Your task to perform on an android device: Go to Yahoo.com Image 0: 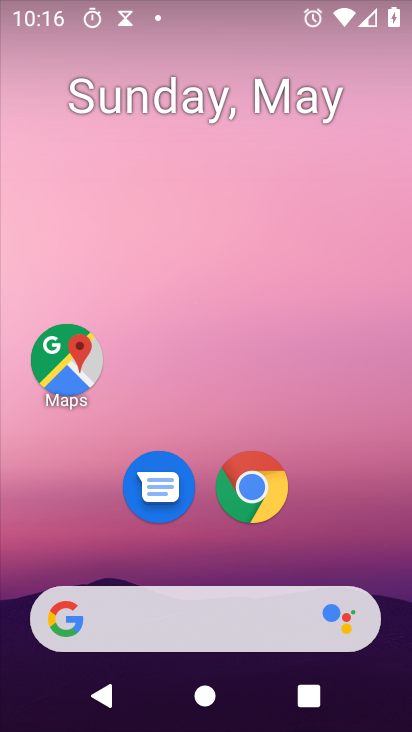
Step 0: drag from (326, 492) to (335, 138)
Your task to perform on an android device: Go to Yahoo.com Image 1: 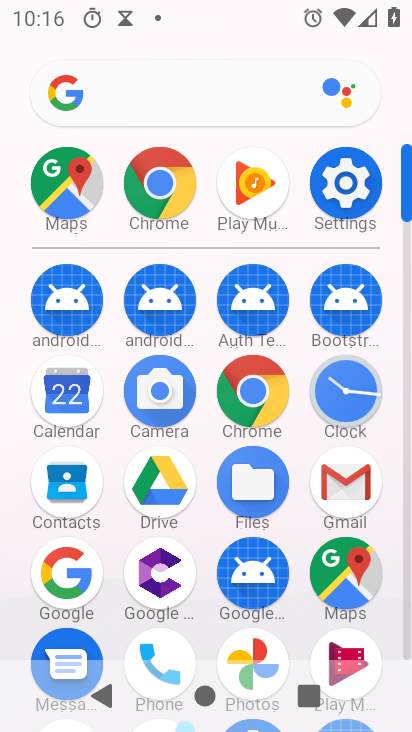
Step 1: click (192, 178)
Your task to perform on an android device: Go to Yahoo.com Image 2: 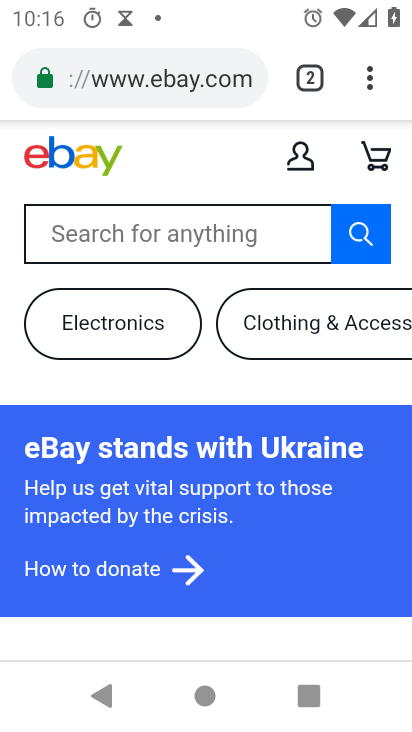
Step 2: click (187, 66)
Your task to perform on an android device: Go to Yahoo.com Image 3: 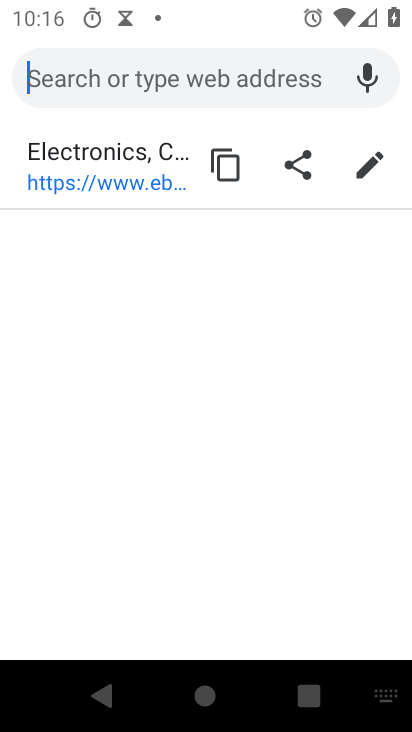
Step 3: type "yahoo"
Your task to perform on an android device: Go to Yahoo.com Image 4: 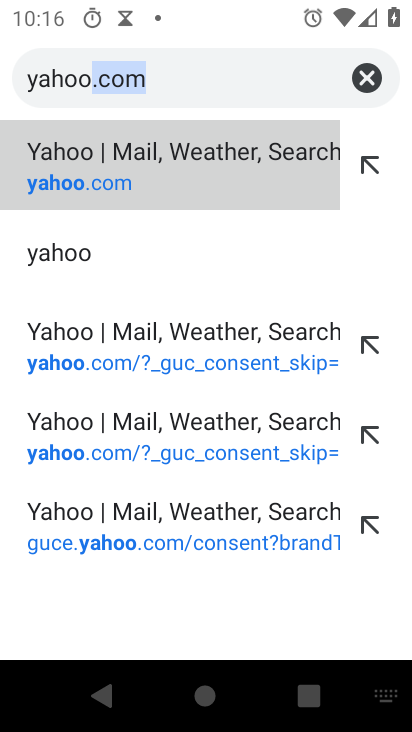
Step 4: click (126, 158)
Your task to perform on an android device: Go to Yahoo.com Image 5: 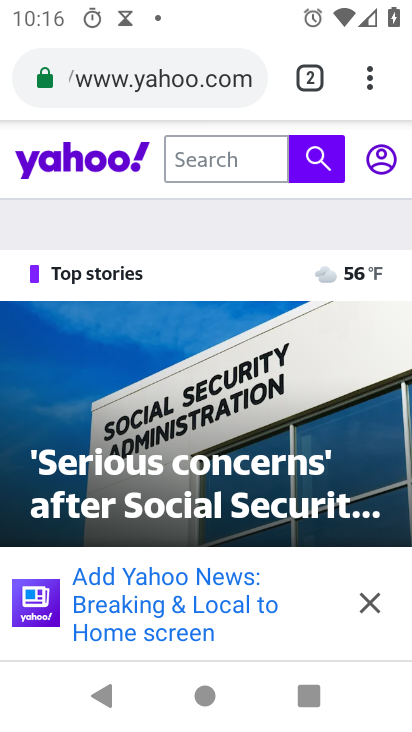
Step 5: task complete